Your task to perform on an android device: View the shopping cart on target.com. Add "bose soundsport free" to the cart on target.com, then select checkout. Image 0: 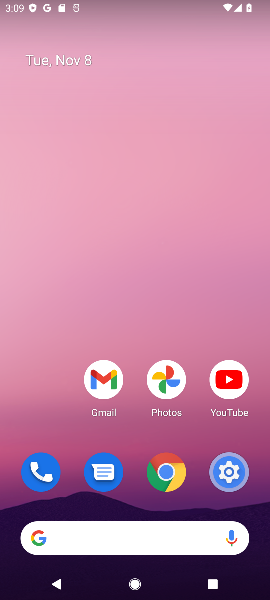
Step 0: click (141, 545)
Your task to perform on an android device: View the shopping cart on target.com. Add "bose soundsport free" to the cart on target.com, then select checkout. Image 1: 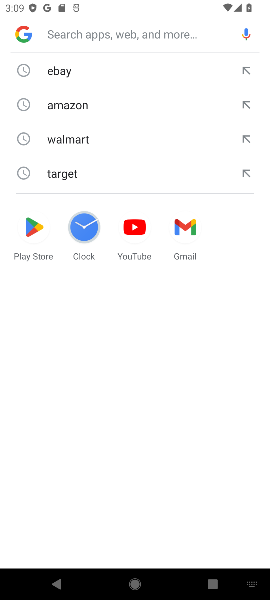
Step 1: click (77, 168)
Your task to perform on an android device: View the shopping cart on target.com. Add "bose soundsport free" to the cart on target.com, then select checkout. Image 2: 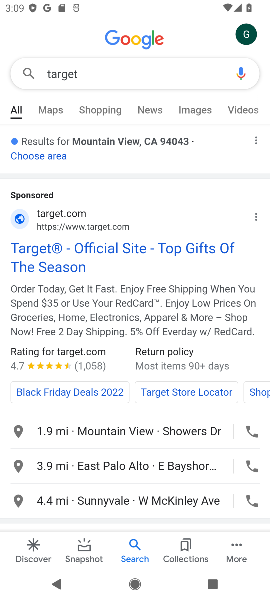
Step 2: click (61, 247)
Your task to perform on an android device: View the shopping cart on target.com. Add "bose soundsport free" to the cart on target.com, then select checkout. Image 3: 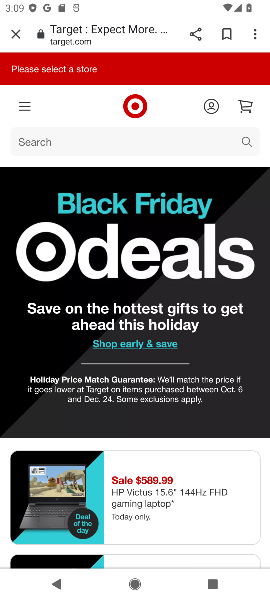
Step 3: click (84, 138)
Your task to perform on an android device: View the shopping cart on target.com. Add "bose soundsport free" to the cart on target.com, then select checkout. Image 4: 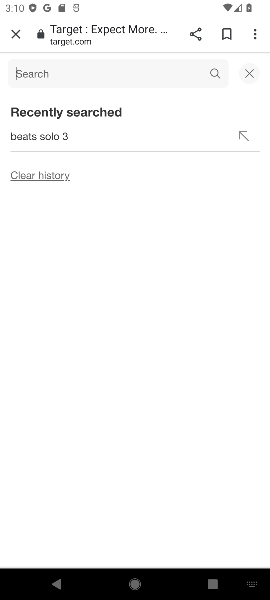
Step 4: type "bose soundsports"
Your task to perform on an android device: View the shopping cart on target.com. Add "bose soundsport free" to the cart on target.com, then select checkout. Image 5: 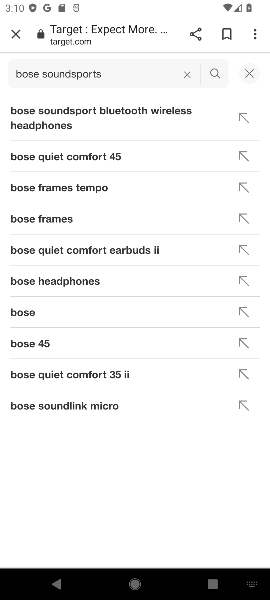
Step 5: click (216, 83)
Your task to perform on an android device: View the shopping cart on target.com. Add "bose soundsport free" to the cart on target.com, then select checkout. Image 6: 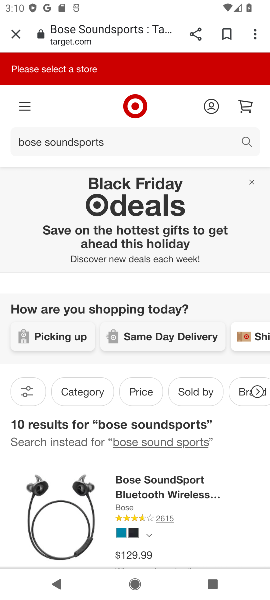
Step 6: task complete